Your task to perform on an android device: search for starred emails in the gmail app Image 0: 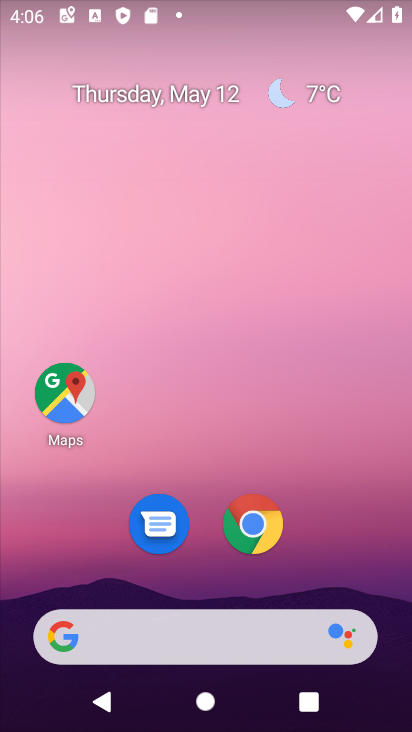
Step 0: drag from (210, 460) to (211, 34)
Your task to perform on an android device: search for starred emails in the gmail app Image 1: 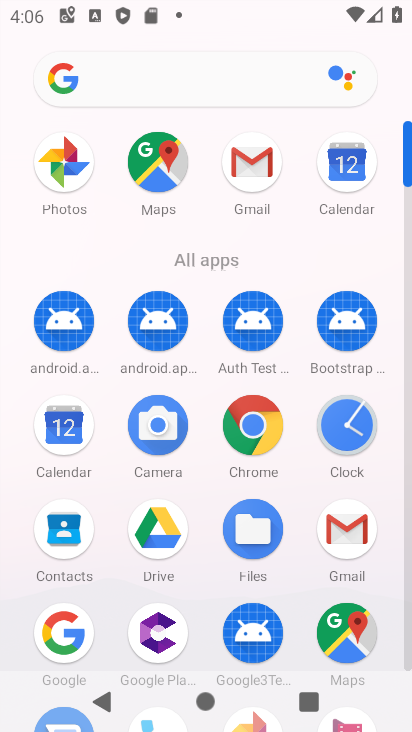
Step 1: click (242, 153)
Your task to perform on an android device: search for starred emails in the gmail app Image 2: 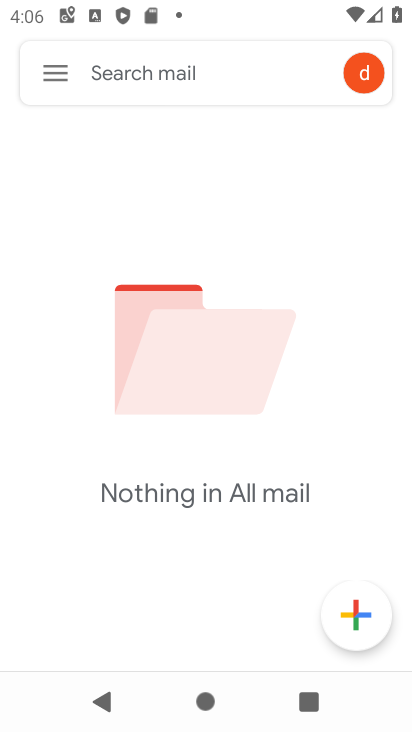
Step 2: click (56, 72)
Your task to perform on an android device: search for starred emails in the gmail app Image 3: 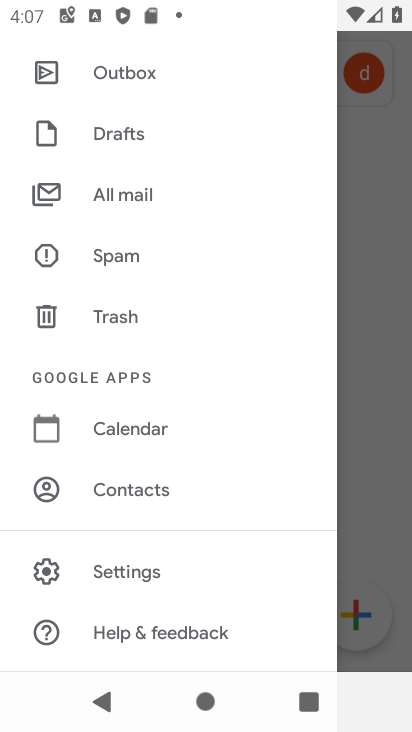
Step 3: drag from (181, 189) to (187, 651)
Your task to perform on an android device: search for starred emails in the gmail app Image 4: 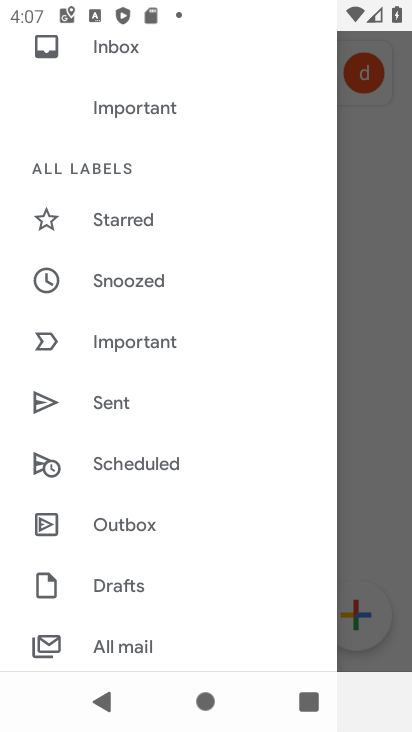
Step 4: click (180, 215)
Your task to perform on an android device: search for starred emails in the gmail app Image 5: 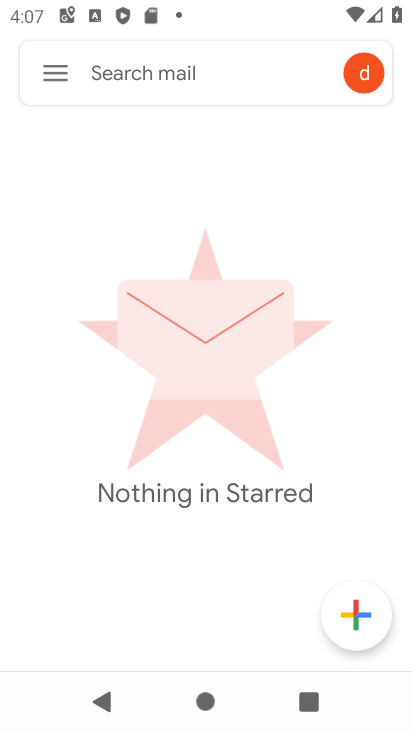
Step 5: task complete